Your task to perform on an android device: allow notifications from all sites in the chrome app Image 0: 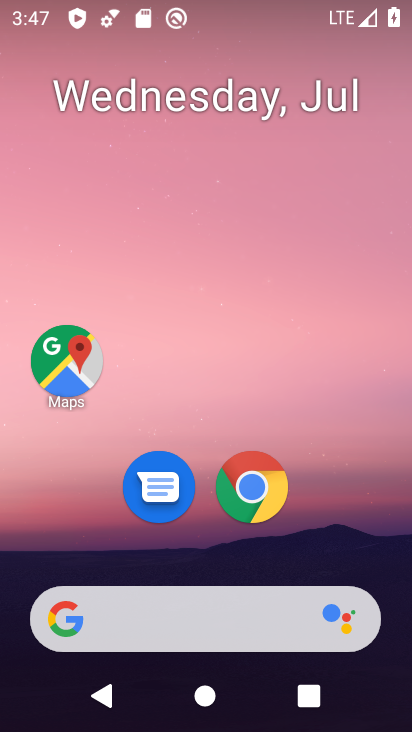
Step 0: drag from (186, 496) to (220, 87)
Your task to perform on an android device: allow notifications from all sites in the chrome app Image 1: 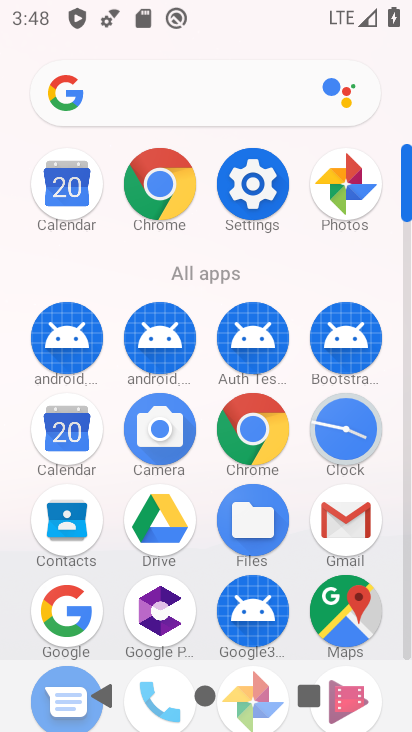
Step 1: drag from (224, 517) to (256, 284)
Your task to perform on an android device: allow notifications from all sites in the chrome app Image 2: 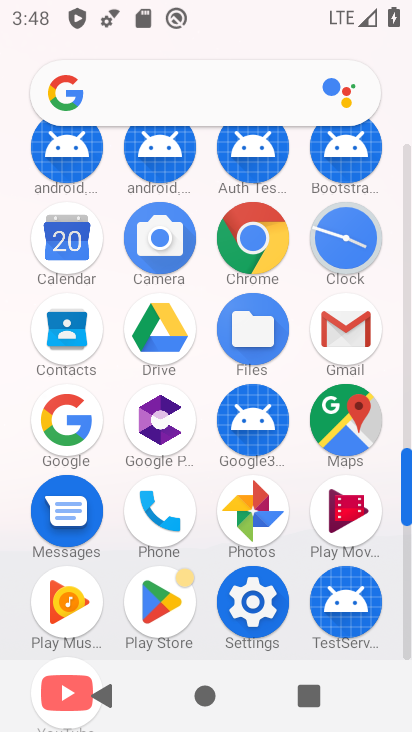
Step 2: click (272, 248)
Your task to perform on an android device: allow notifications from all sites in the chrome app Image 3: 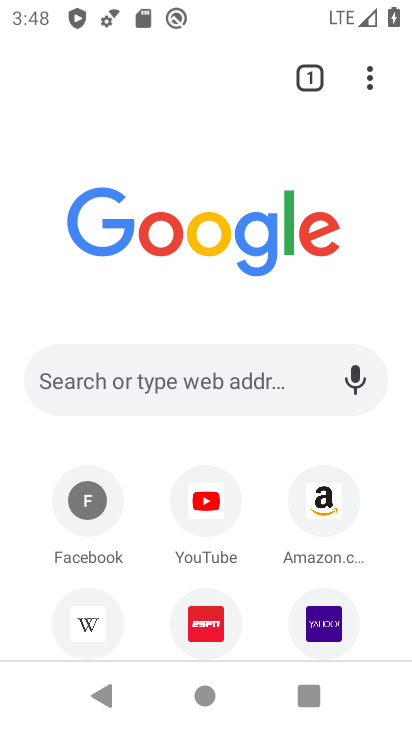
Step 3: click (372, 89)
Your task to perform on an android device: allow notifications from all sites in the chrome app Image 4: 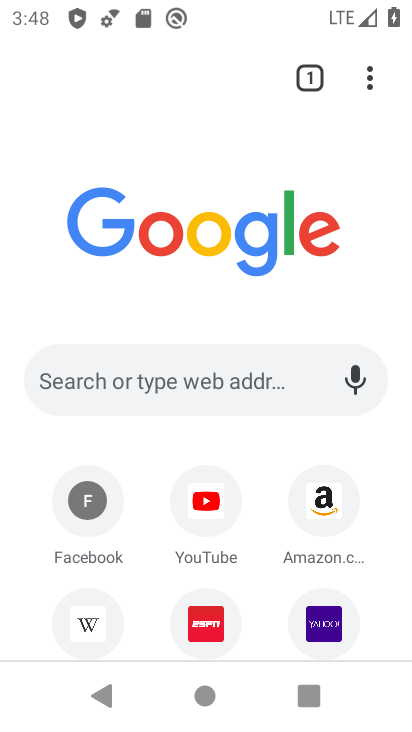
Step 4: click (366, 75)
Your task to perform on an android device: allow notifications from all sites in the chrome app Image 5: 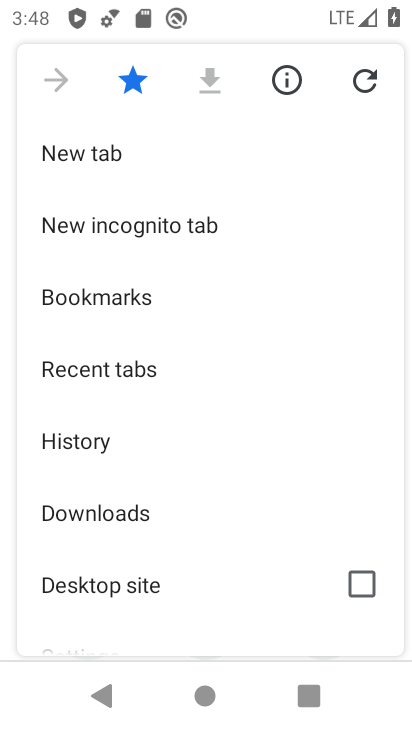
Step 5: drag from (150, 509) to (150, 250)
Your task to perform on an android device: allow notifications from all sites in the chrome app Image 6: 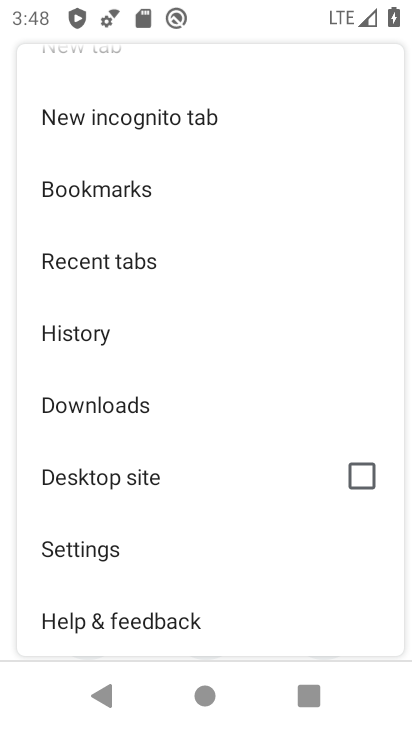
Step 6: click (69, 554)
Your task to perform on an android device: allow notifications from all sites in the chrome app Image 7: 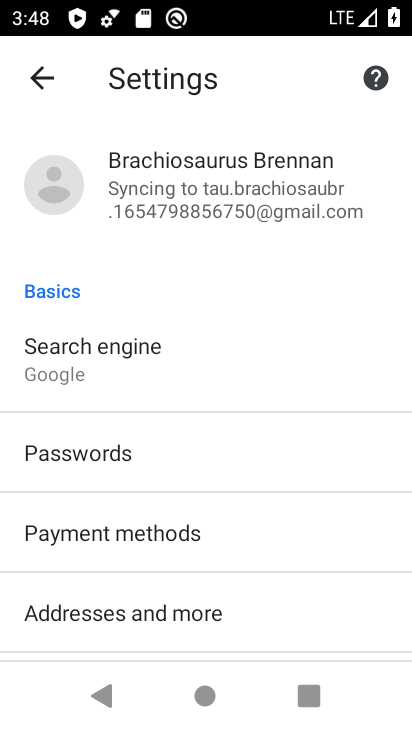
Step 7: drag from (152, 534) to (182, 249)
Your task to perform on an android device: allow notifications from all sites in the chrome app Image 8: 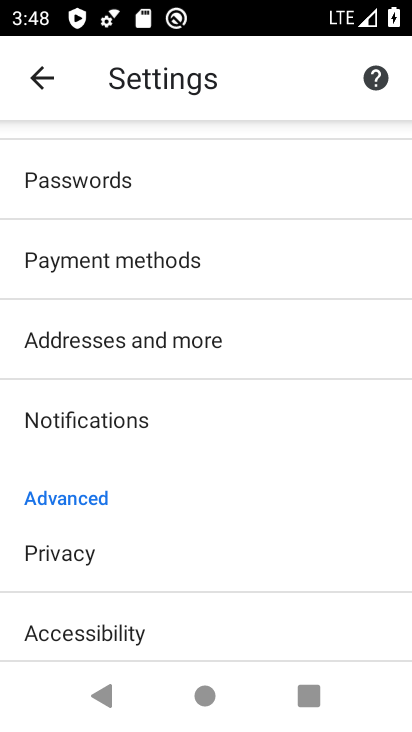
Step 8: click (134, 424)
Your task to perform on an android device: allow notifications from all sites in the chrome app Image 9: 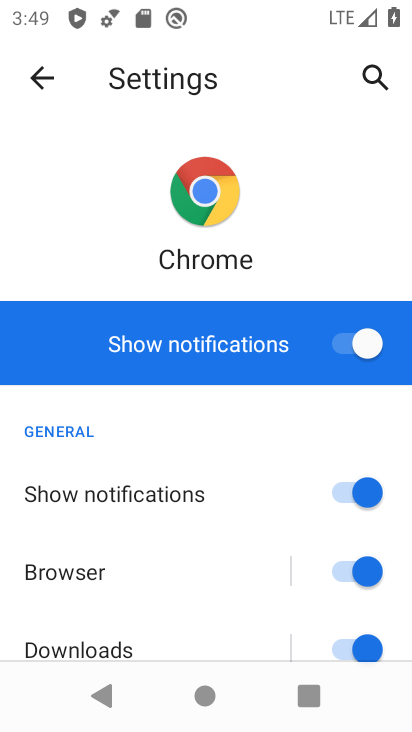
Step 9: task complete